Your task to perform on an android device: Turn off the flashlight Image 0: 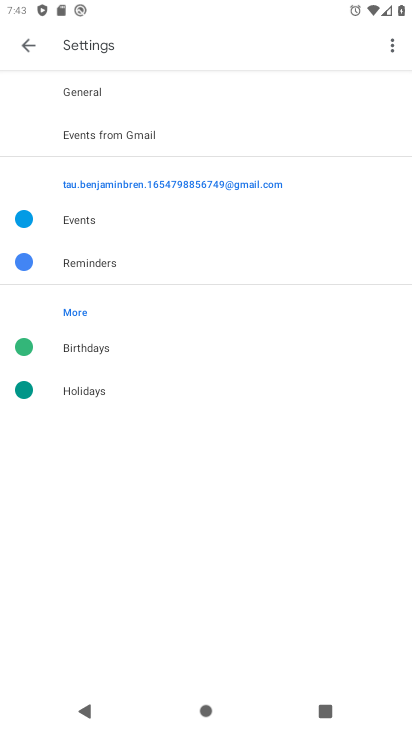
Step 0: press home button
Your task to perform on an android device: Turn off the flashlight Image 1: 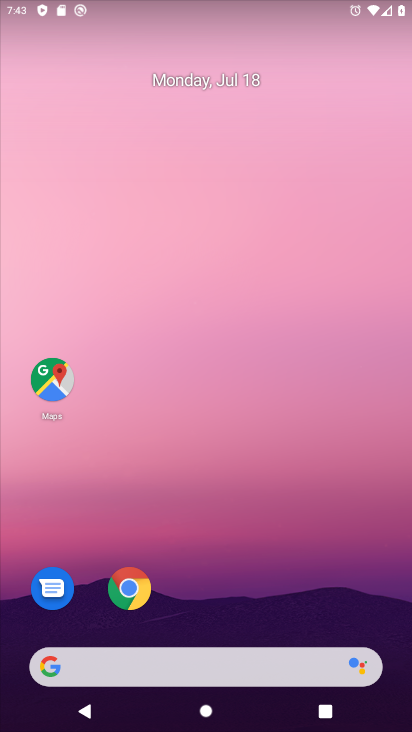
Step 1: drag from (174, 562) to (221, 323)
Your task to perform on an android device: Turn off the flashlight Image 2: 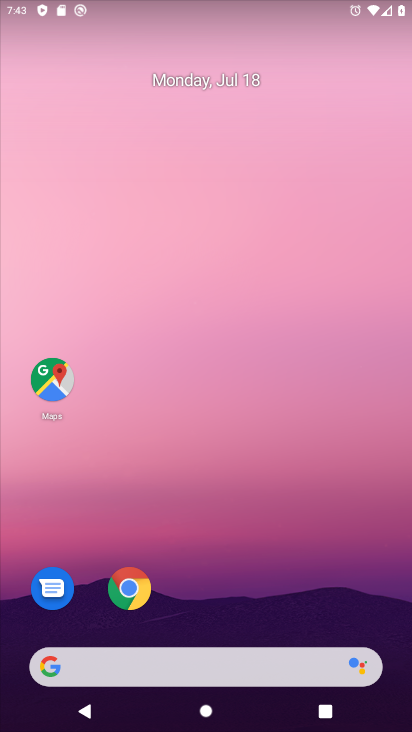
Step 2: drag from (187, 528) to (200, 18)
Your task to perform on an android device: Turn off the flashlight Image 3: 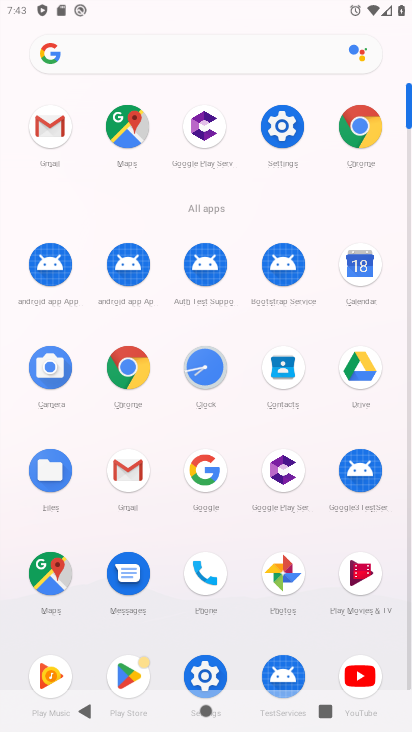
Step 3: click (272, 131)
Your task to perform on an android device: Turn off the flashlight Image 4: 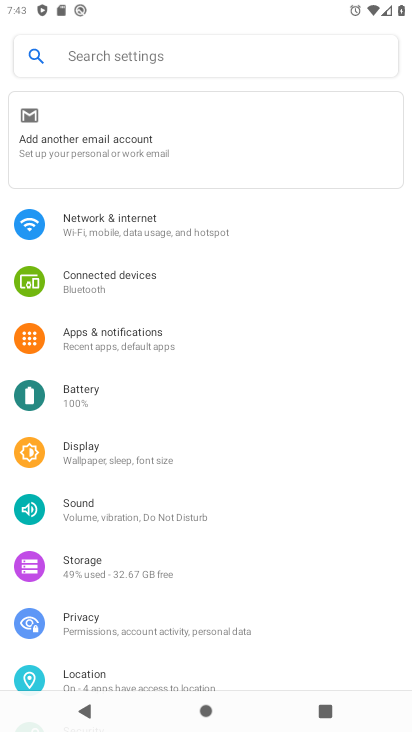
Step 4: click (167, 44)
Your task to perform on an android device: Turn off the flashlight Image 5: 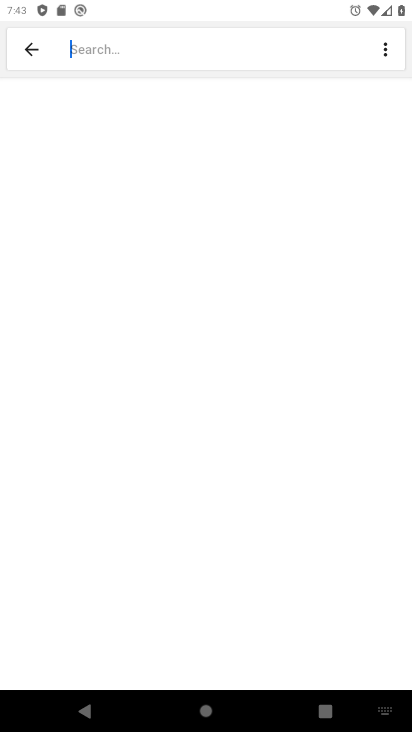
Step 5: type "flashlight"
Your task to perform on an android device: Turn off the flashlight Image 6: 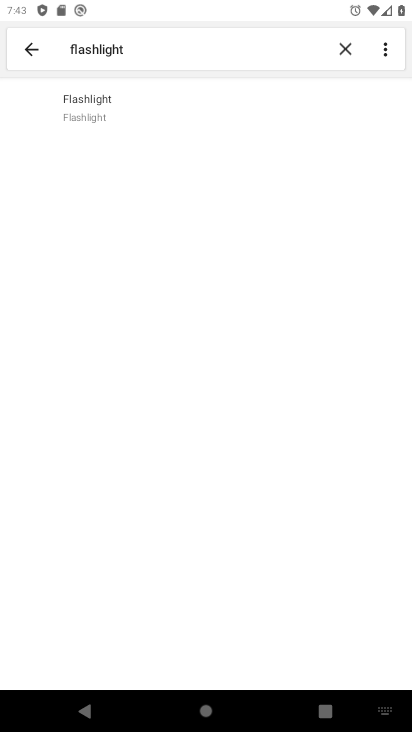
Step 6: click (97, 113)
Your task to perform on an android device: Turn off the flashlight Image 7: 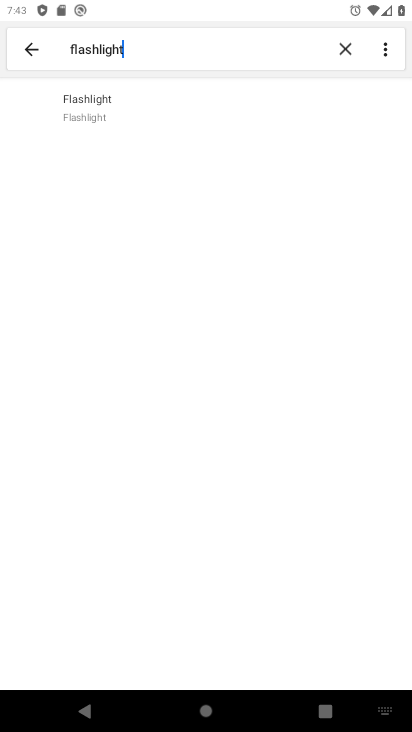
Step 7: click (85, 118)
Your task to perform on an android device: Turn off the flashlight Image 8: 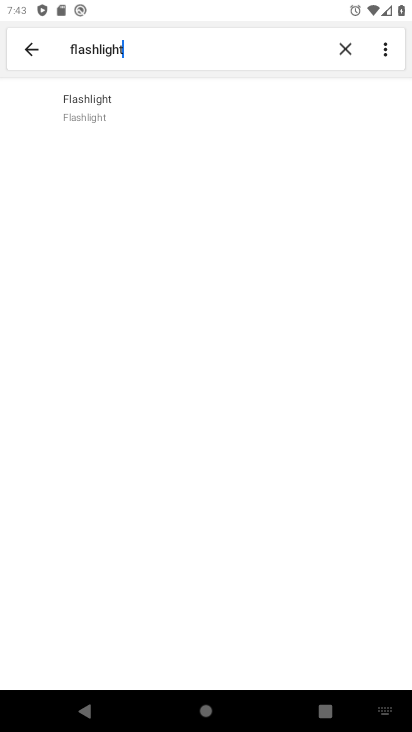
Step 8: task complete